Your task to perform on an android device: Open wifi settings Image 0: 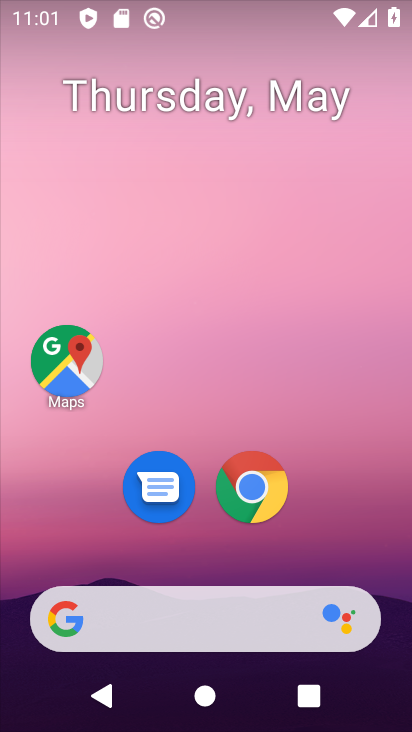
Step 0: drag from (345, 487) to (410, 12)
Your task to perform on an android device: Open wifi settings Image 1: 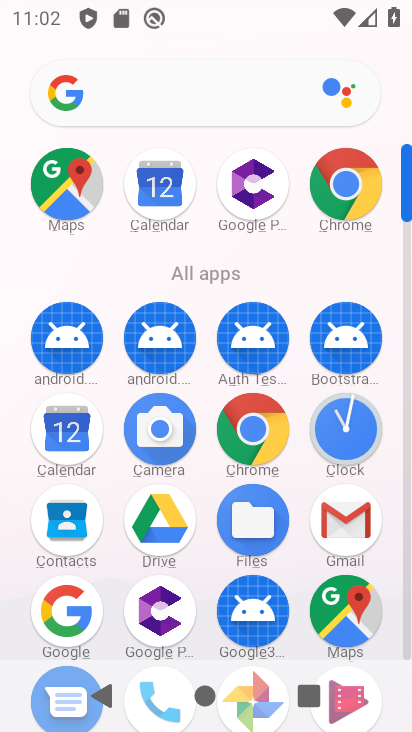
Step 1: drag from (394, 559) to (406, 194)
Your task to perform on an android device: Open wifi settings Image 2: 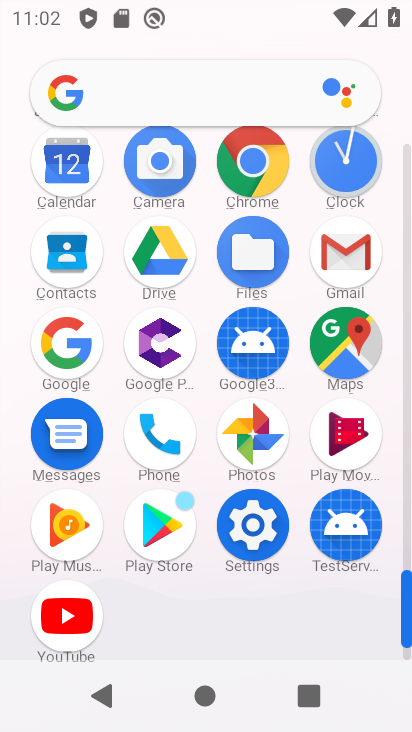
Step 2: click (268, 544)
Your task to perform on an android device: Open wifi settings Image 3: 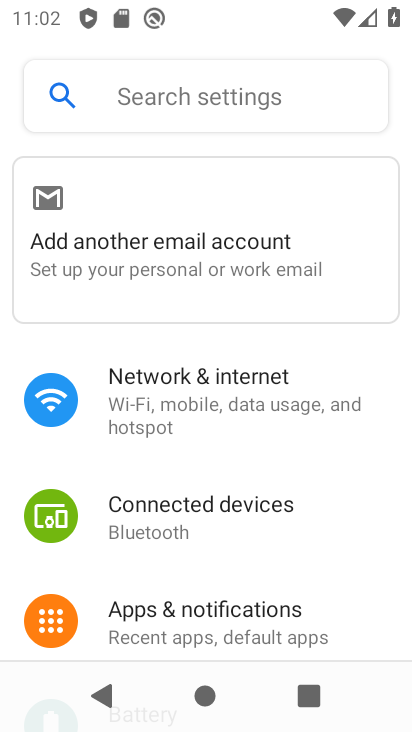
Step 3: click (209, 379)
Your task to perform on an android device: Open wifi settings Image 4: 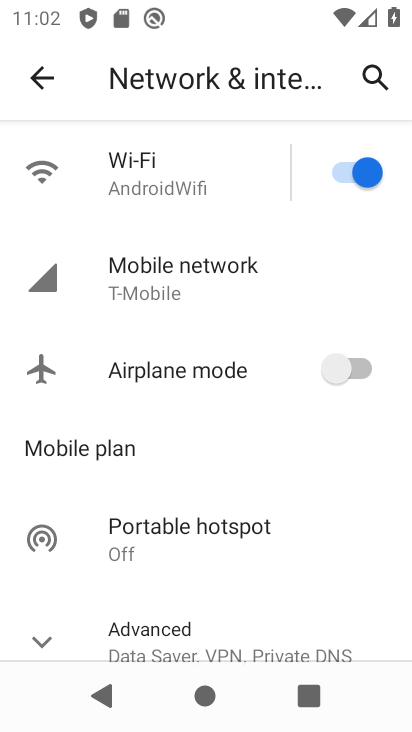
Step 4: click (150, 179)
Your task to perform on an android device: Open wifi settings Image 5: 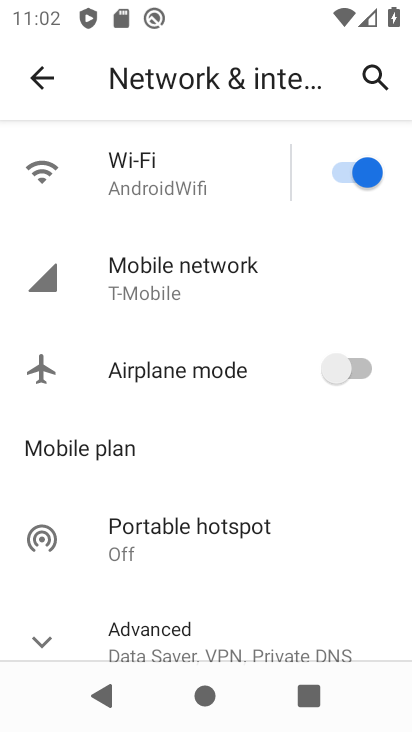
Step 5: task complete